Your task to perform on an android device: toggle notifications settings in the gmail app Image 0: 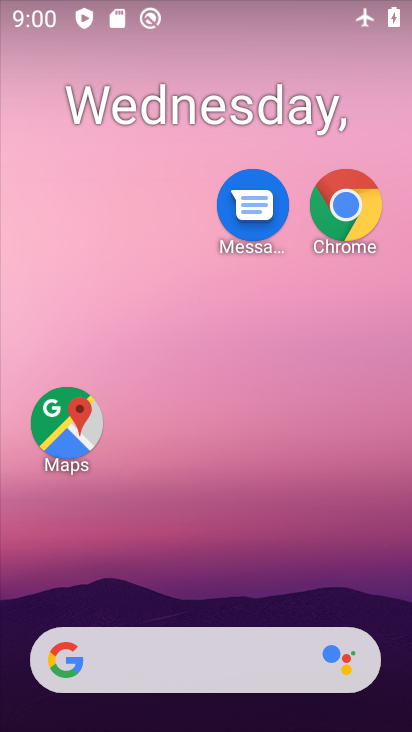
Step 0: drag from (226, 590) to (177, 0)
Your task to perform on an android device: toggle notifications settings in the gmail app Image 1: 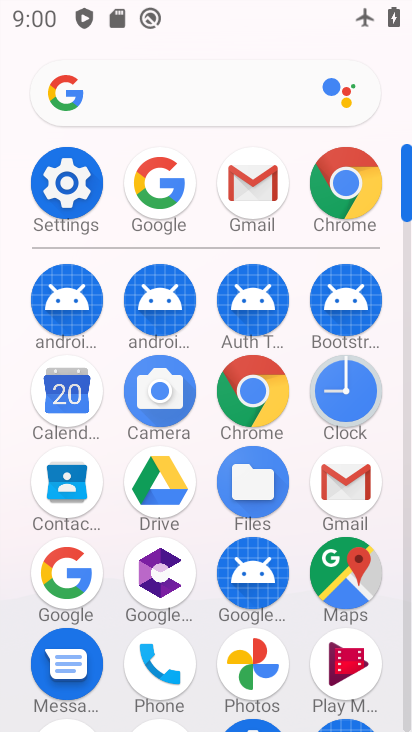
Step 1: click (355, 474)
Your task to perform on an android device: toggle notifications settings in the gmail app Image 2: 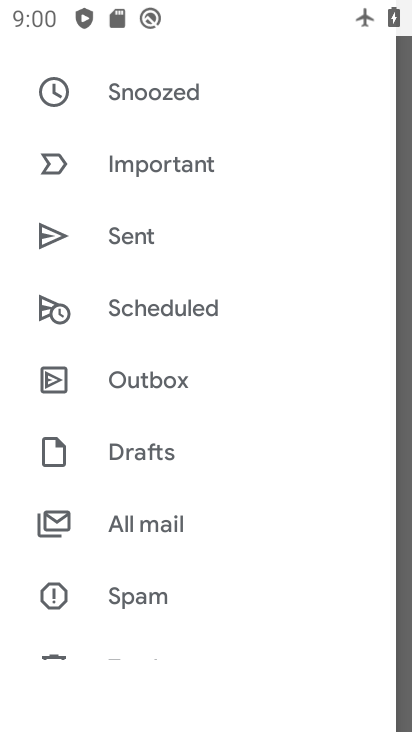
Step 2: drag from (221, 548) to (279, 60)
Your task to perform on an android device: toggle notifications settings in the gmail app Image 3: 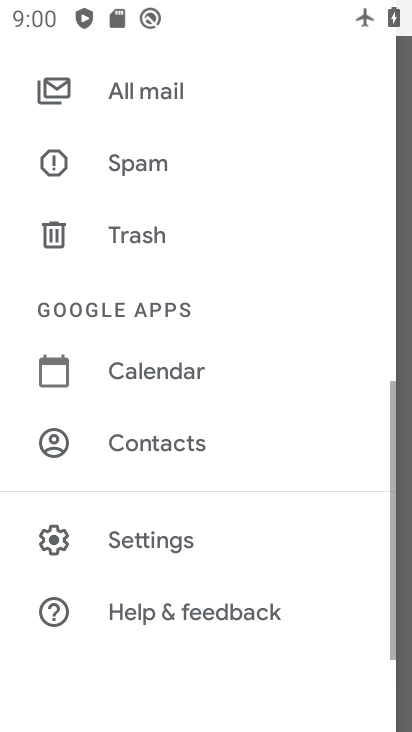
Step 3: click (194, 541)
Your task to perform on an android device: toggle notifications settings in the gmail app Image 4: 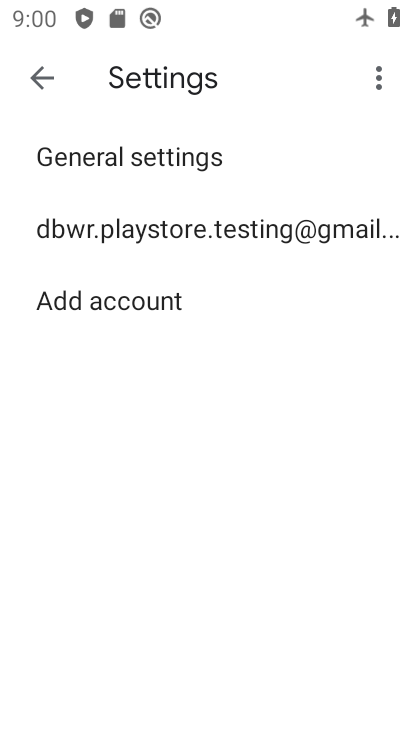
Step 4: click (202, 216)
Your task to perform on an android device: toggle notifications settings in the gmail app Image 5: 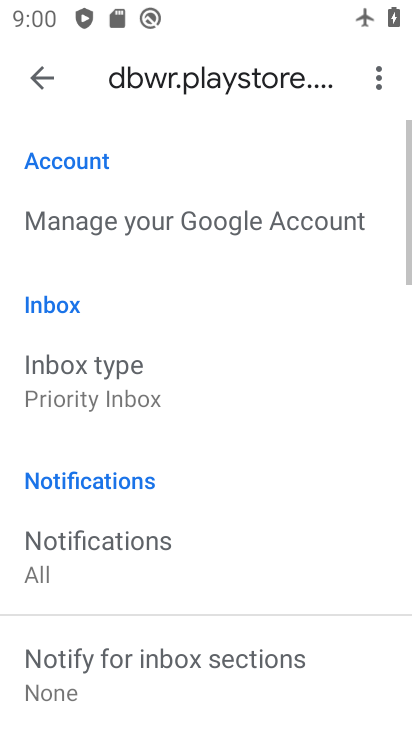
Step 5: drag from (197, 684) to (383, 135)
Your task to perform on an android device: toggle notifications settings in the gmail app Image 6: 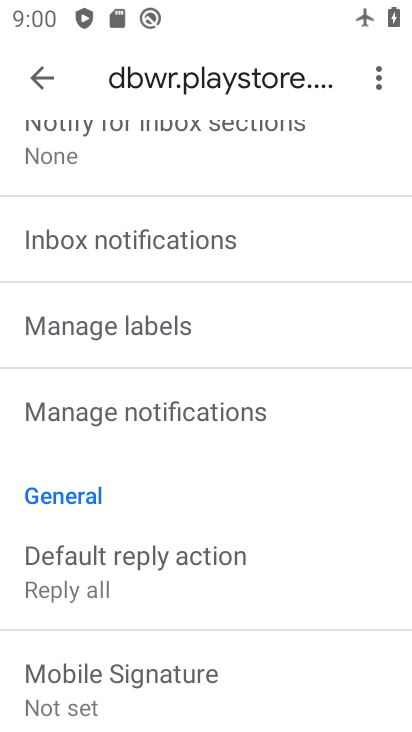
Step 6: click (159, 413)
Your task to perform on an android device: toggle notifications settings in the gmail app Image 7: 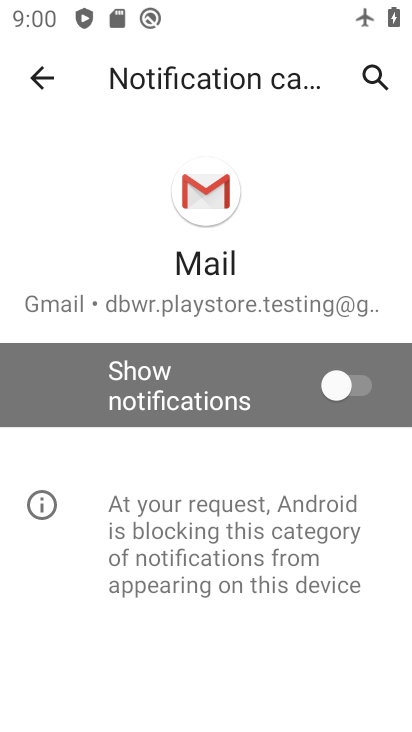
Step 7: click (278, 408)
Your task to perform on an android device: toggle notifications settings in the gmail app Image 8: 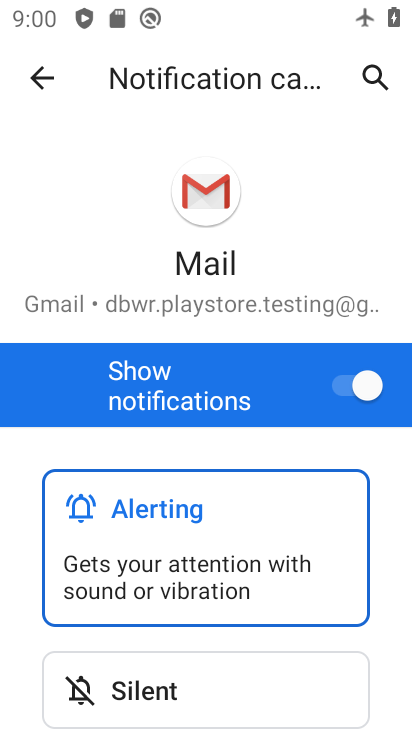
Step 8: task complete